Your task to perform on an android device: Check the weather Image 0: 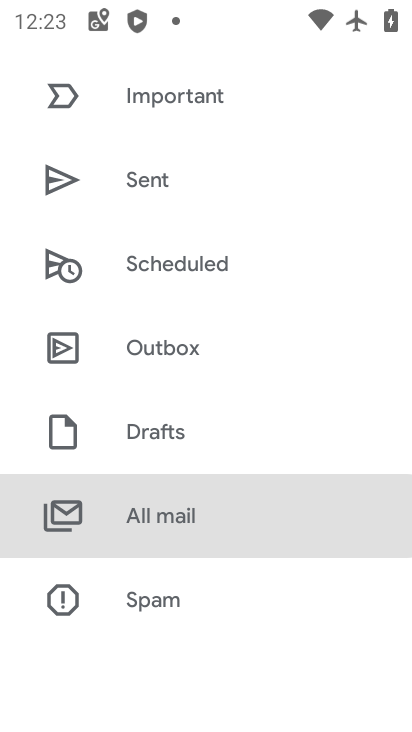
Step 0: press home button
Your task to perform on an android device: Check the weather Image 1: 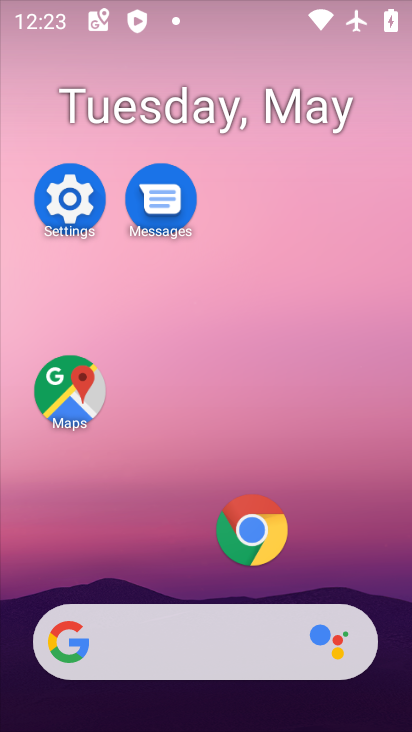
Step 1: drag from (193, 554) to (306, 192)
Your task to perform on an android device: Check the weather Image 2: 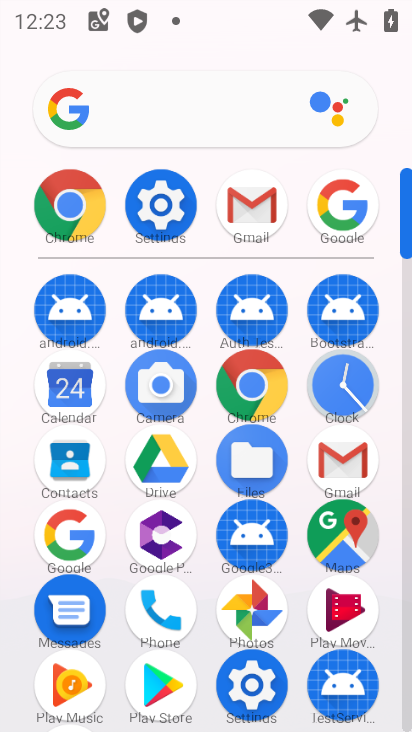
Step 2: click (81, 549)
Your task to perform on an android device: Check the weather Image 3: 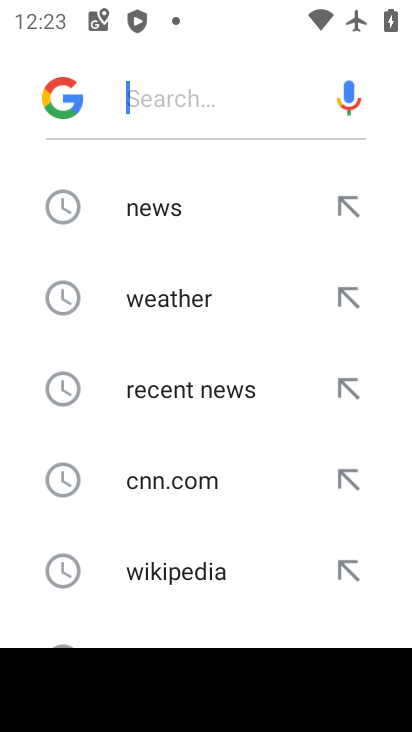
Step 3: click (49, 100)
Your task to perform on an android device: Check the weather Image 4: 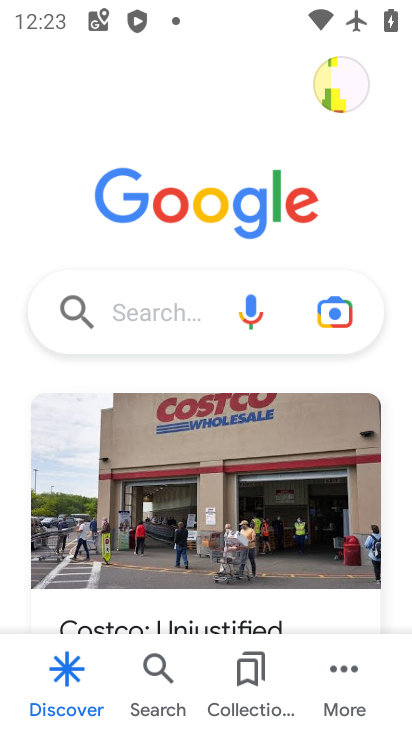
Step 4: drag from (95, 510) to (111, 337)
Your task to perform on an android device: Check the weather Image 5: 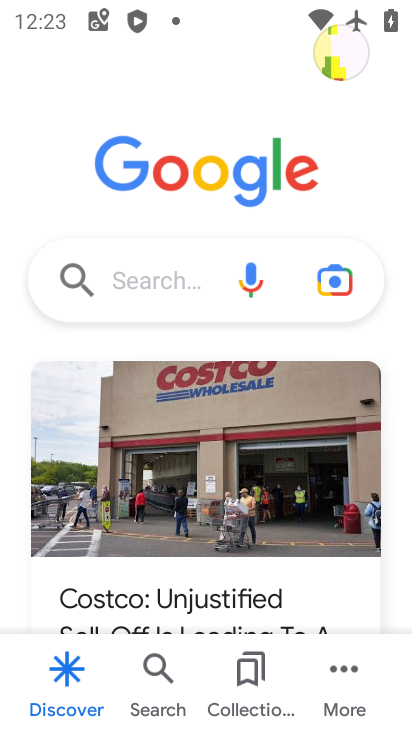
Step 5: click (137, 281)
Your task to perform on an android device: Check the weather Image 6: 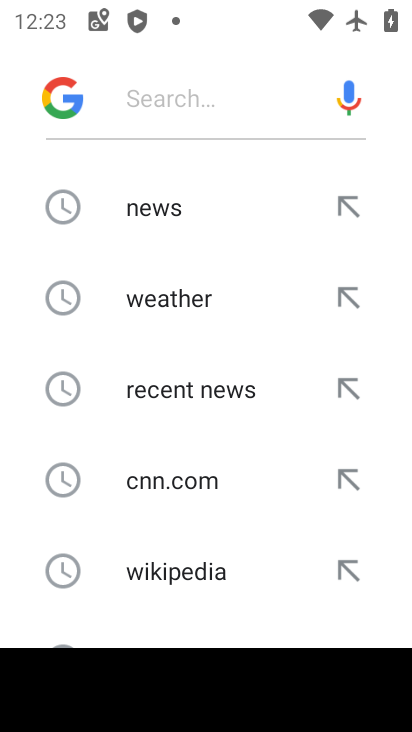
Step 6: click (171, 311)
Your task to perform on an android device: Check the weather Image 7: 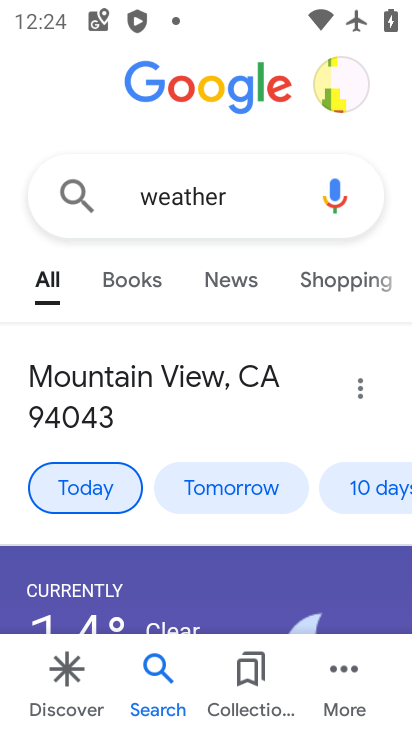
Step 7: task complete